Your task to perform on an android device: find snoozed emails in the gmail app Image 0: 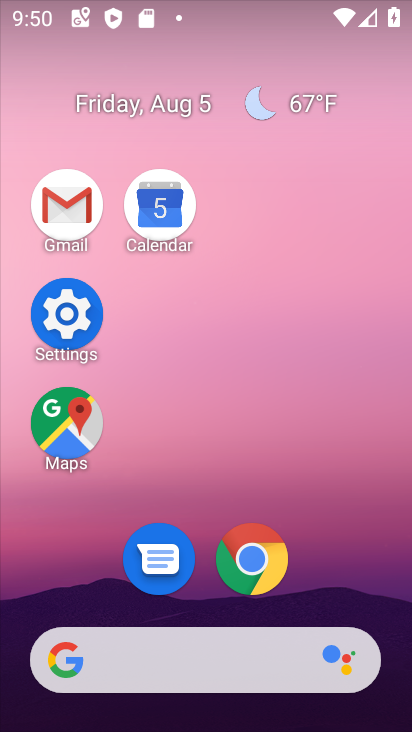
Step 0: click (260, 549)
Your task to perform on an android device: find snoozed emails in the gmail app Image 1: 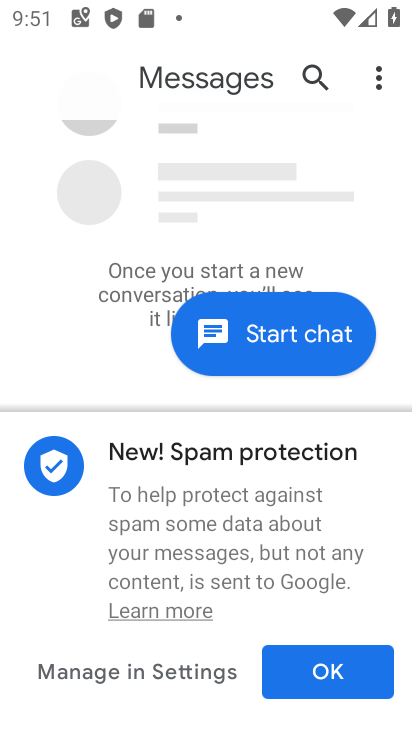
Step 1: press home button
Your task to perform on an android device: find snoozed emails in the gmail app Image 2: 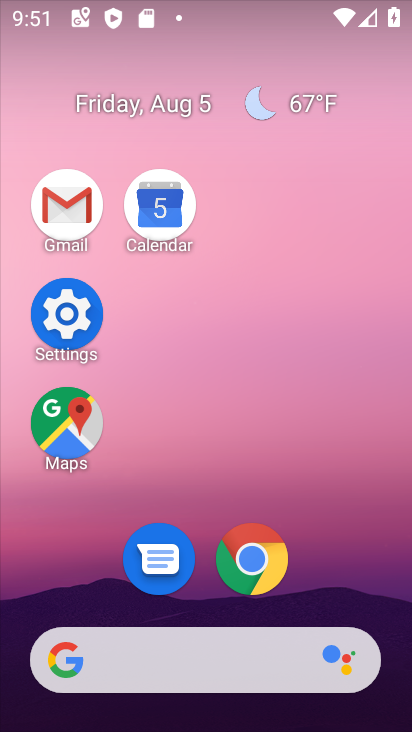
Step 2: click (48, 194)
Your task to perform on an android device: find snoozed emails in the gmail app Image 3: 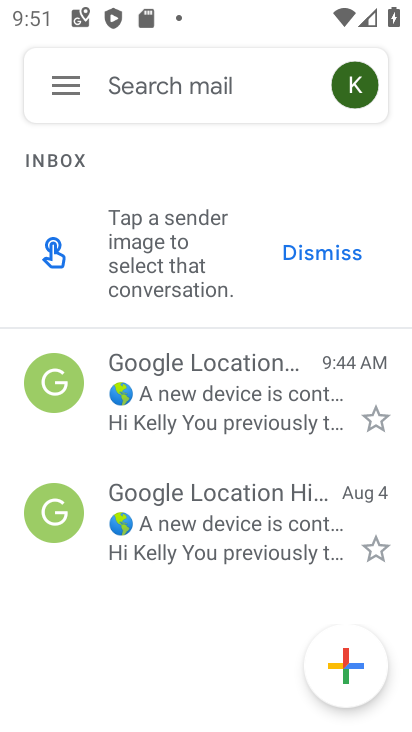
Step 3: click (80, 115)
Your task to perform on an android device: find snoozed emails in the gmail app Image 4: 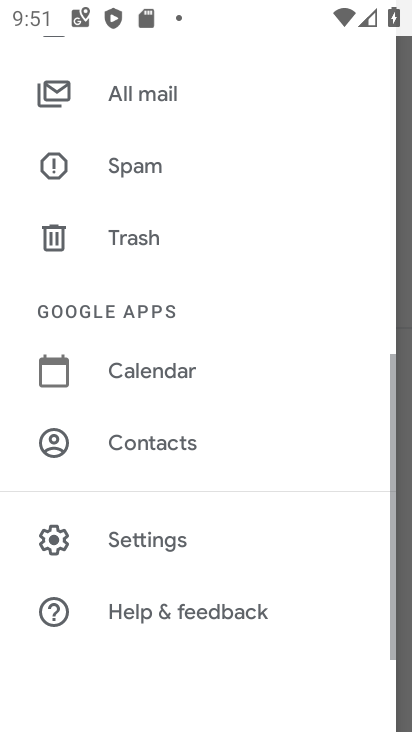
Step 4: drag from (246, 161) to (336, 590)
Your task to perform on an android device: find snoozed emails in the gmail app Image 5: 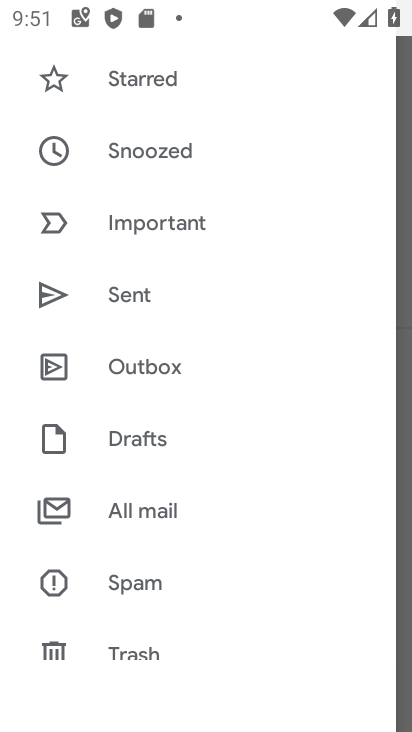
Step 5: click (176, 147)
Your task to perform on an android device: find snoozed emails in the gmail app Image 6: 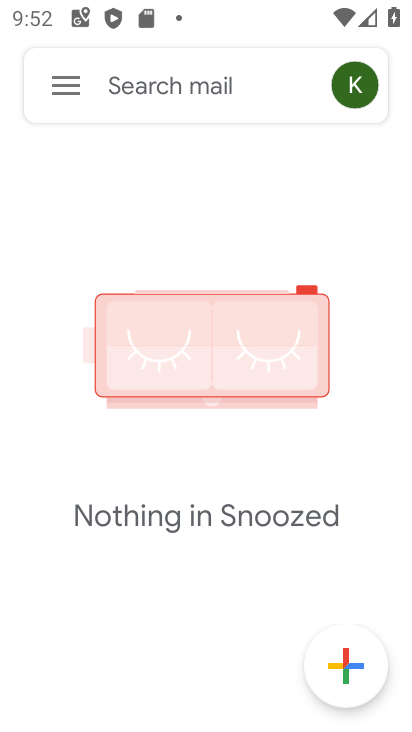
Step 6: task complete